Your task to perform on an android device: Open notification settings Image 0: 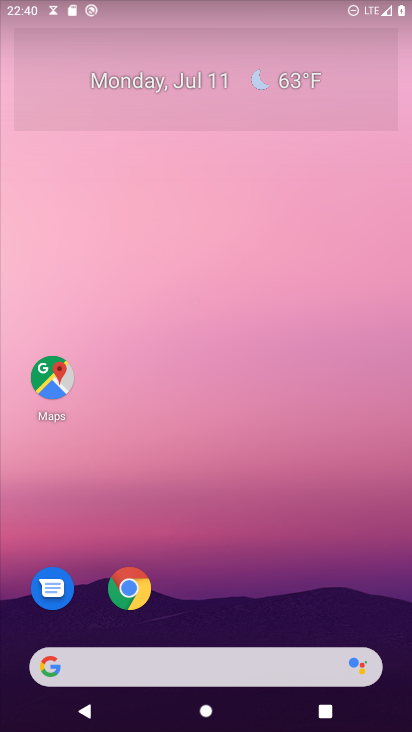
Step 0: drag from (188, 616) to (290, 164)
Your task to perform on an android device: Open notification settings Image 1: 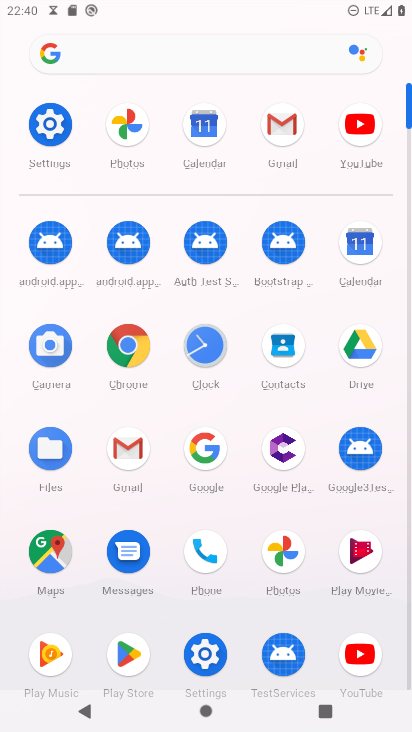
Step 1: click (42, 116)
Your task to perform on an android device: Open notification settings Image 2: 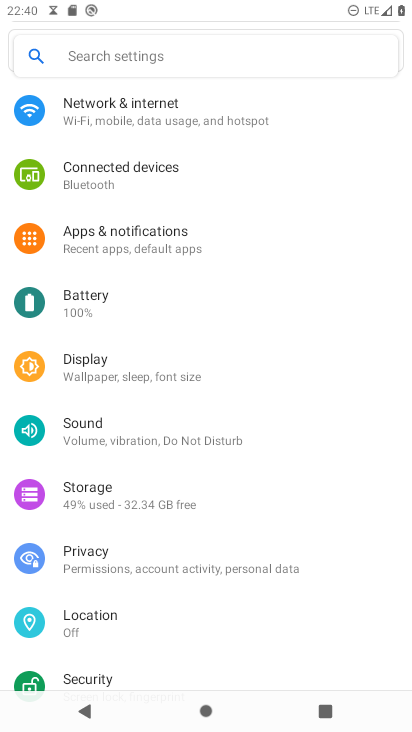
Step 2: click (144, 236)
Your task to perform on an android device: Open notification settings Image 3: 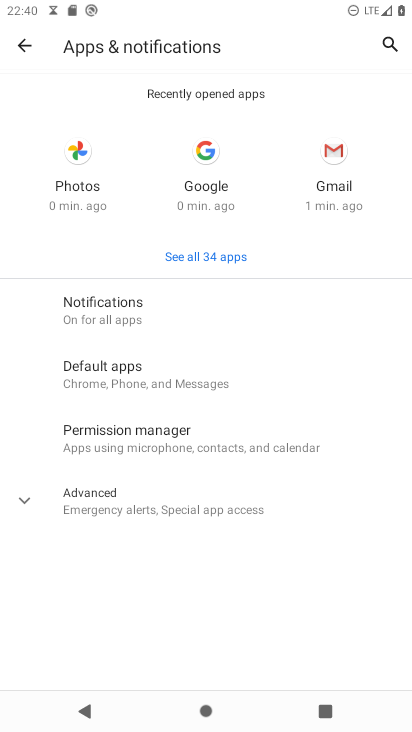
Step 3: click (115, 308)
Your task to perform on an android device: Open notification settings Image 4: 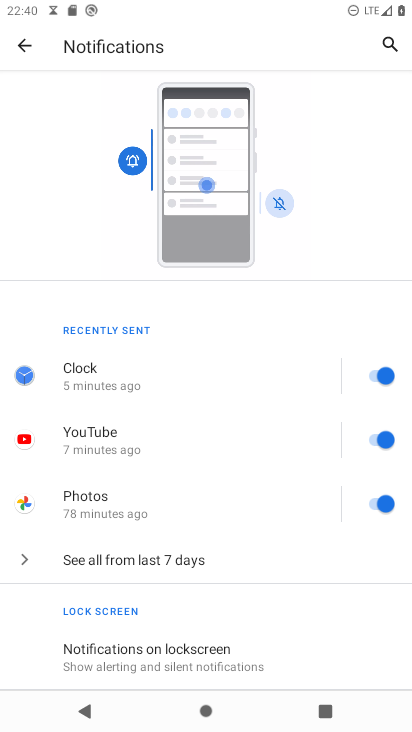
Step 4: task complete